Your task to perform on an android device: Open the Google play store app Image 0: 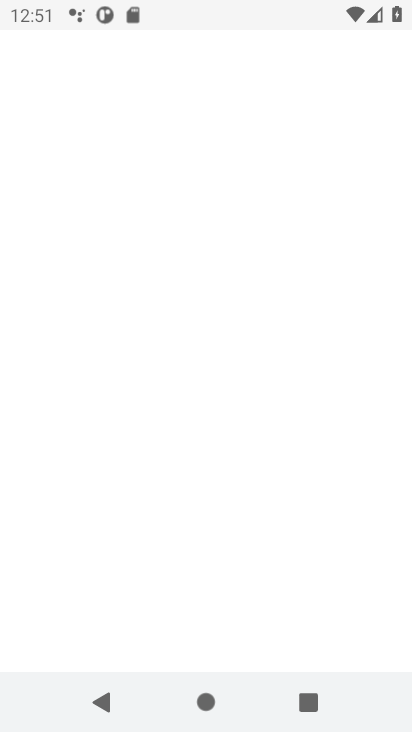
Step 0: press home button
Your task to perform on an android device: Open the Google play store app Image 1: 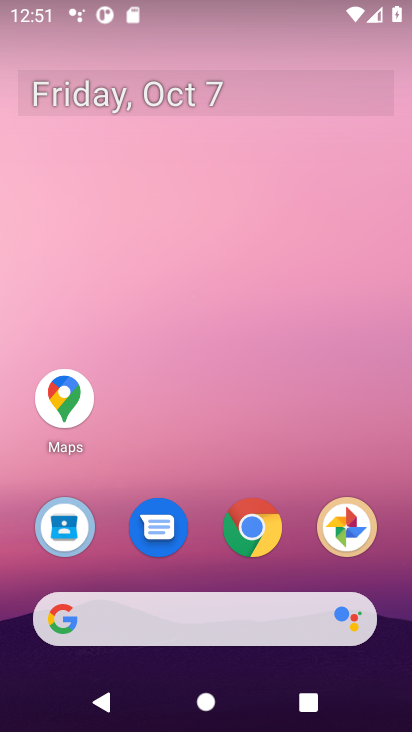
Step 1: drag from (193, 549) to (227, 8)
Your task to perform on an android device: Open the Google play store app Image 2: 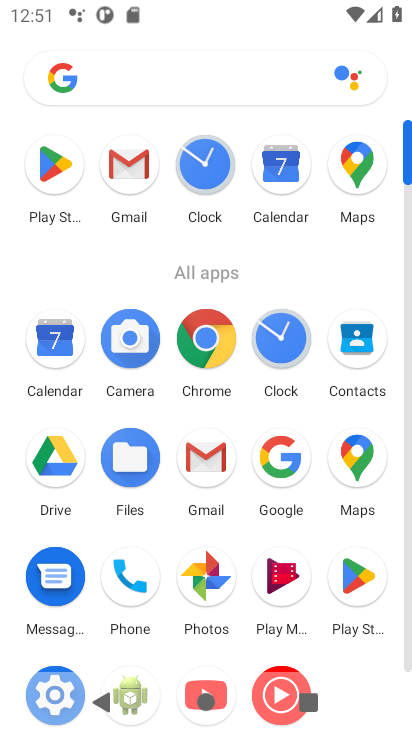
Step 2: click (77, 183)
Your task to perform on an android device: Open the Google play store app Image 3: 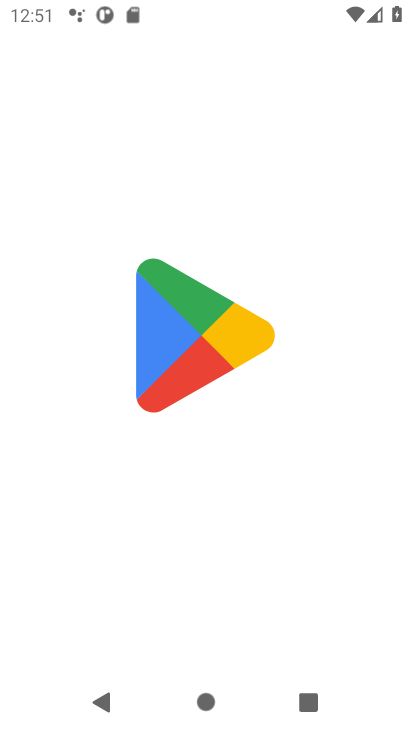
Step 3: task complete